Your task to perform on an android device: toggle javascript in the chrome app Image 0: 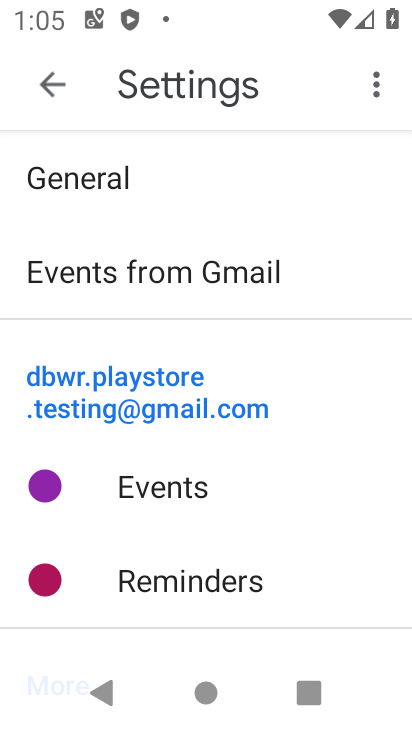
Step 0: press home button
Your task to perform on an android device: toggle javascript in the chrome app Image 1: 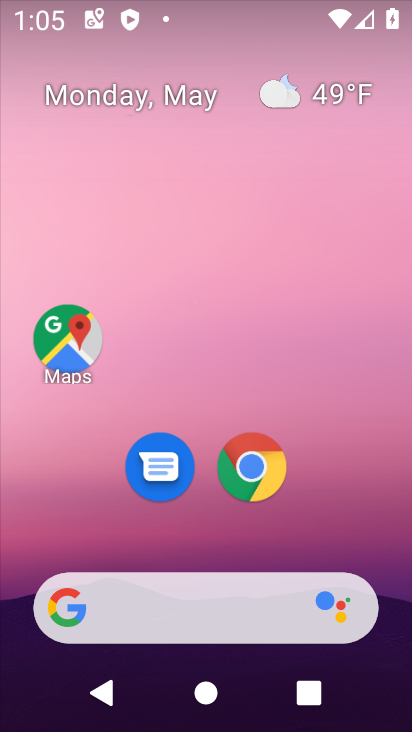
Step 1: drag from (315, 523) to (333, 155)
Your task to perform on an android device: toggle javascript in the chrome app Image 2: 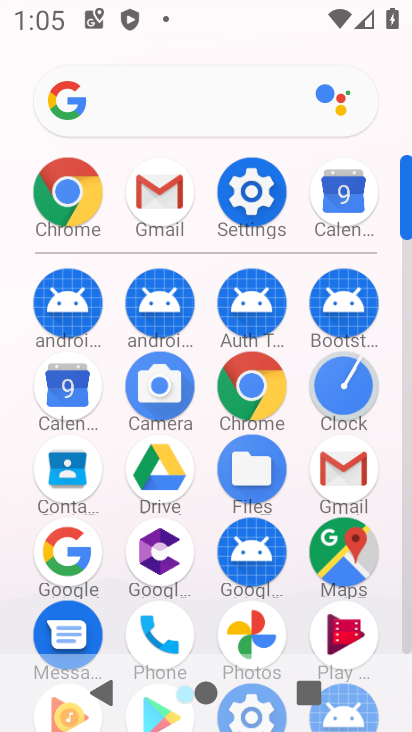
Step 2: click (259, 407)
Your task to perform on an android device: toggle javascript in the chrome app Image 3: 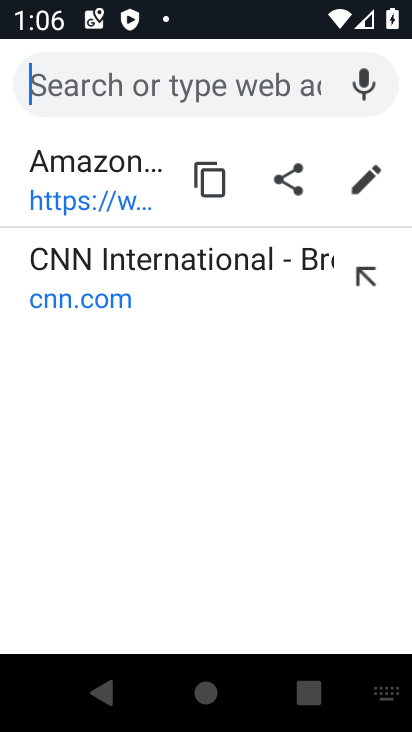
Step 3: press back button
Your task to perform on an android device: toggle javascript in the chrome app Image 4: 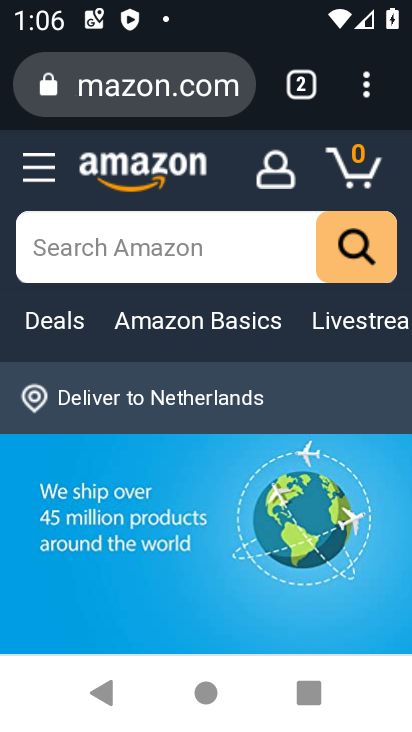
Step 4: drag from (373, 98) to (216, 520)
Your task to perform on an android device: toggle javascript in the chrome app Image 5: 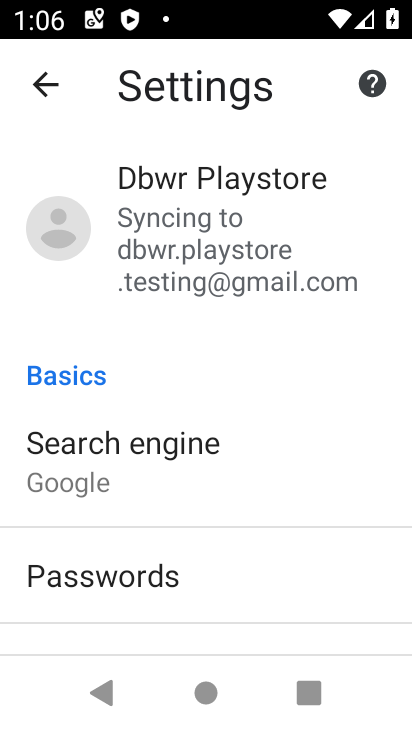
Step 5: drag from (277, 586) to (310, 277)
Your task to perform on an android device: toggle javascript in the chrome app Image 6: 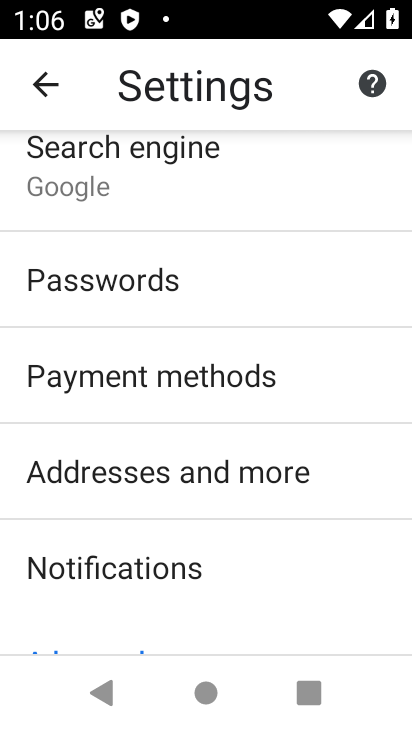
Step 6: drag from (270, 576) to (313, 281)
Your task to perform on an android device: toggle javascript in the chrome app Image 7: 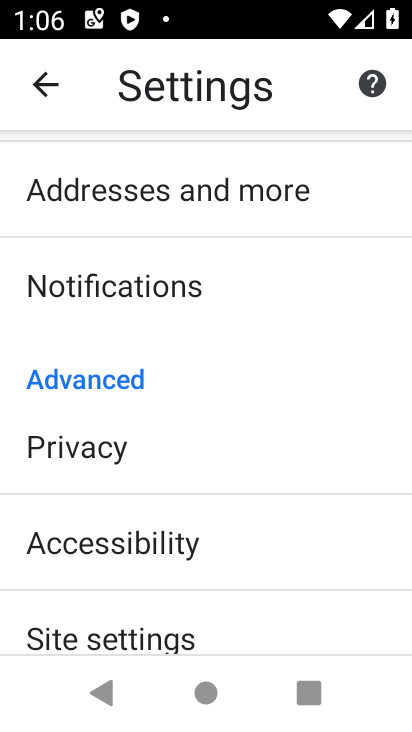
Step 7: drag from (308, 561) to (315, 353)
Your task to perform on an android device: toggle javascript in the chrome app Image 8: 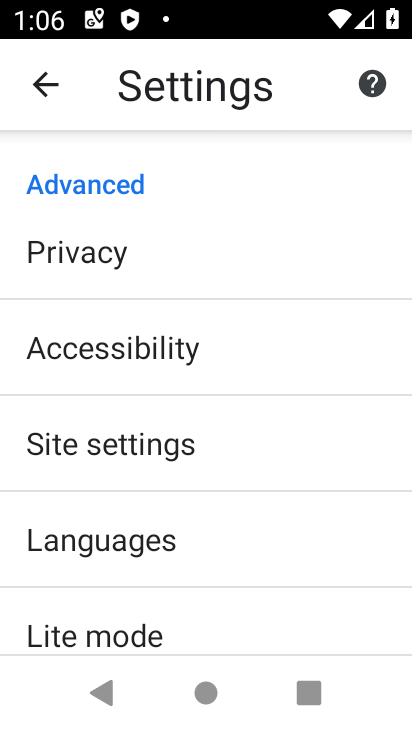
Step 8: drag from (273, 576) to (274, 383)
Your task to perform on an android device: toggle javascript in the chrome app Image 9: 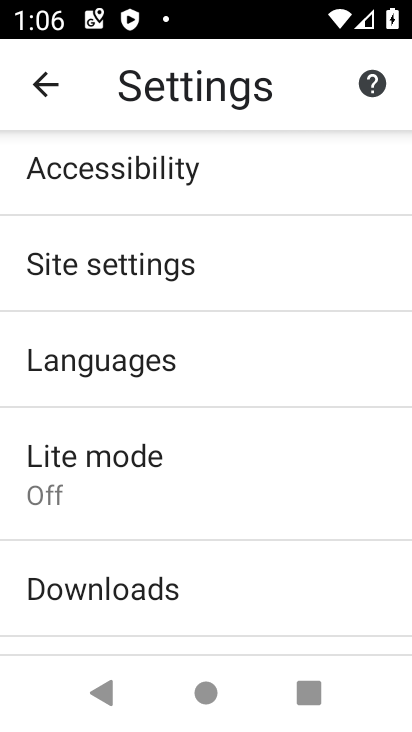
Step 9: click (163, 274)
Your task to perform on an android device: toggle javascript in the chrome app Image 10: 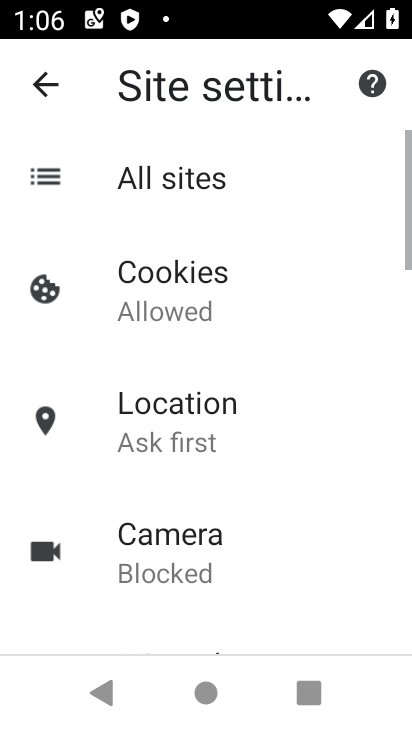
Step 10: drag from (257, 566) to (288, 274)
Your task to perform on an android device: toggle javascript in the chrome app Image 11: 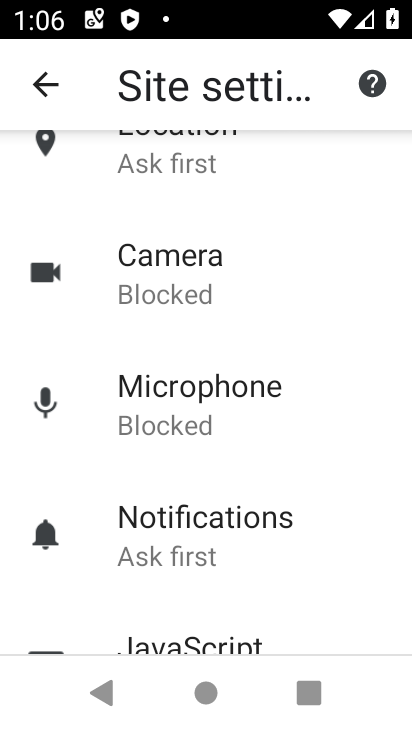
Step 11: drag from (305, 585) to (303, 345)
Your task to perform on an android device: toggle javascript in the chrome app Image 12: 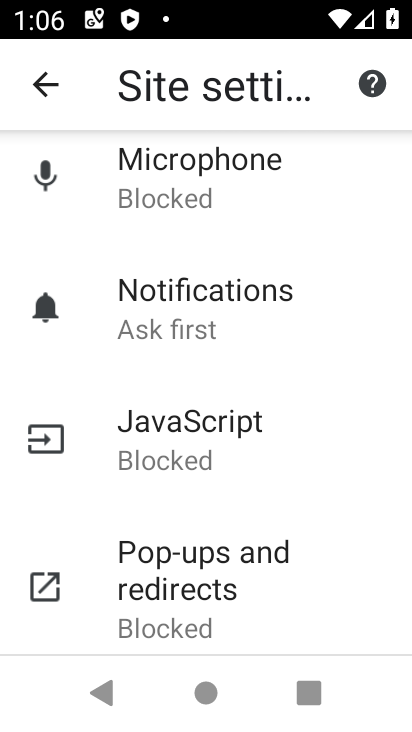
Step 12: click (242, 421)
Your task to perform on an android device: toggle javascript in the chrome app Image 13: 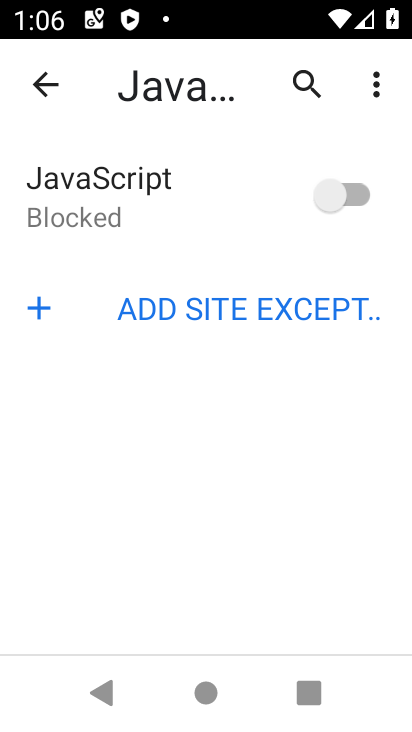
Step 13: click (353, 194)
Your task to perform on an android device: toggle javascript in the chrome app Image 14: 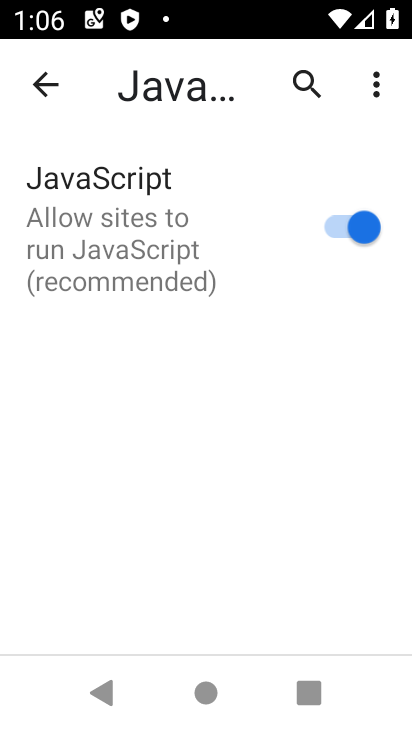
Step 14: task complete